Your task to perform on an android device: Do I have any events today? Image 0: 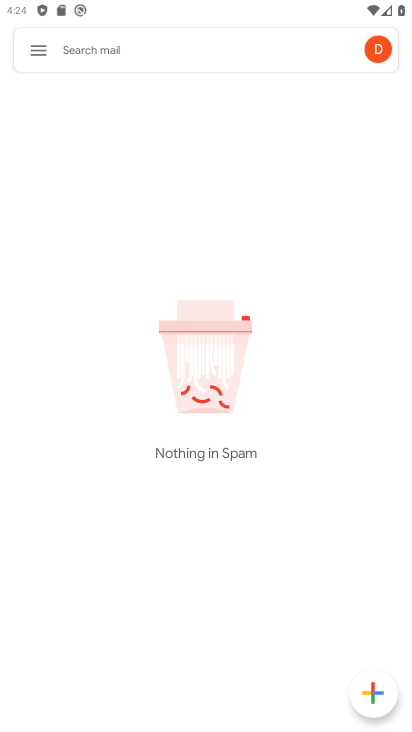
Step 0: press back button
Your task to perform on an android device: Do I have any events today? Image 1: 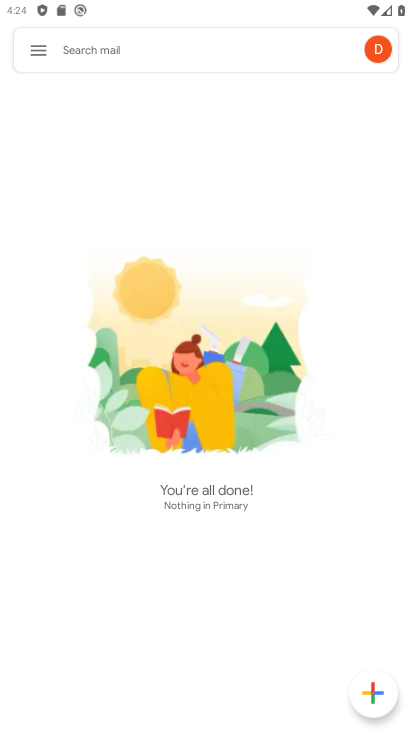
Step 1: press back button
Your task to perform on an android device: Do I have any events today? Image 2: 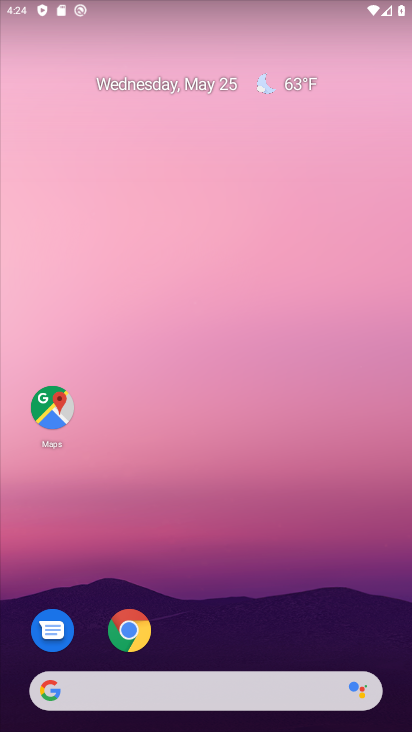
Step 2: drag from (249, 610) to (246, 115)
Your task to perform on an android device: Do I have any events today? Image 3: 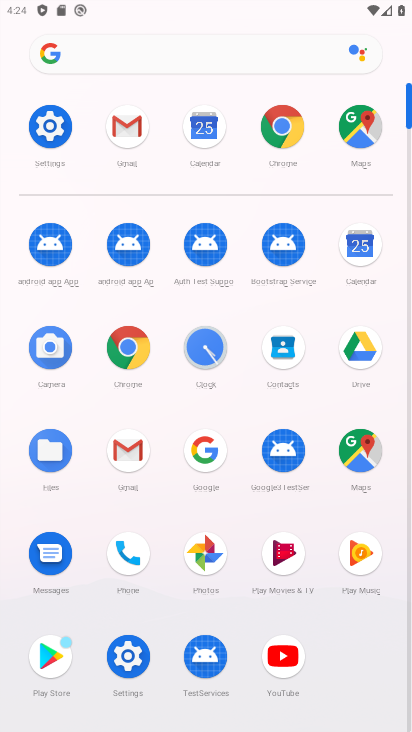
Step 3: click (363, 235)
Your task to perform on an android device: Do I have any events today? Image 4: 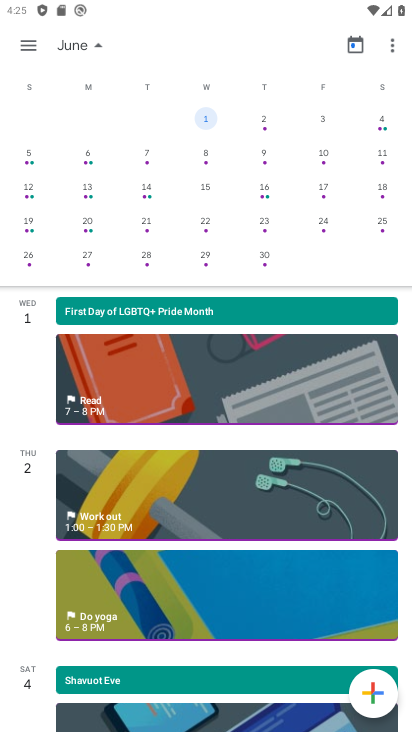
Step 4: drag from (52, 189) to (328, 208)
Your task to perform on an android device: Do I have any events today? Image 5: 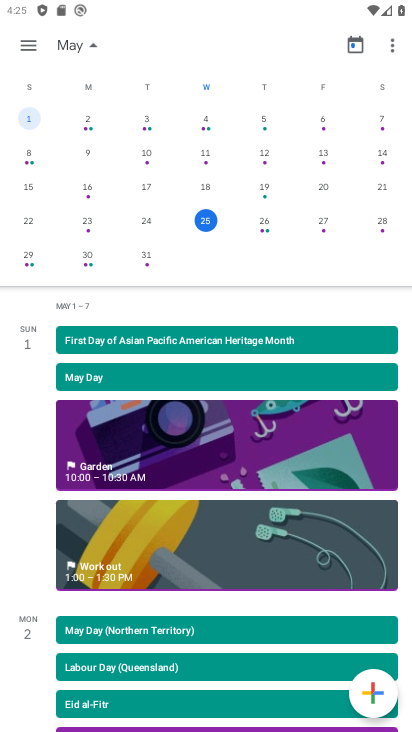
Step 5: click (215, 219)
Your task to perform on an android device: Do I have any events today? Image 6: 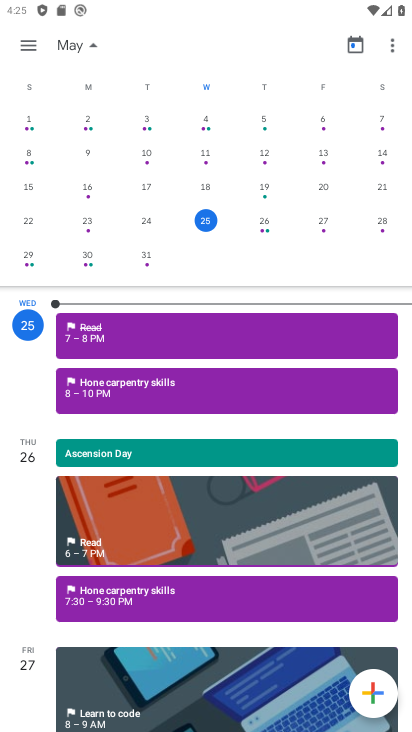
Step 6: click (205, 217)
Your task to perform on an android device: Do I have any events today? Image 7: 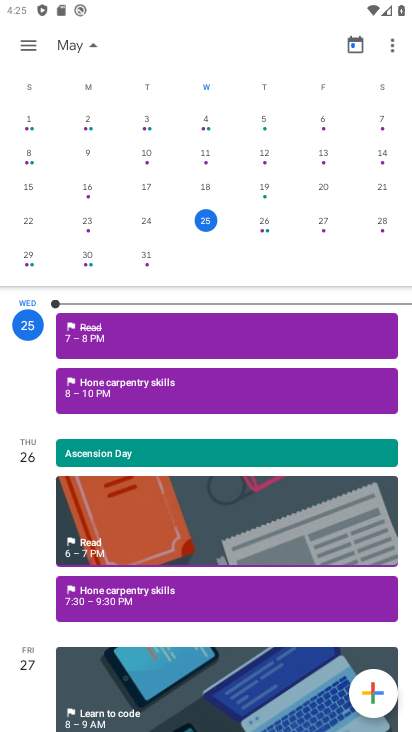
Step 7: click (122, 451)
Your task to perform on an android device: Do I have any events today? Image 8: 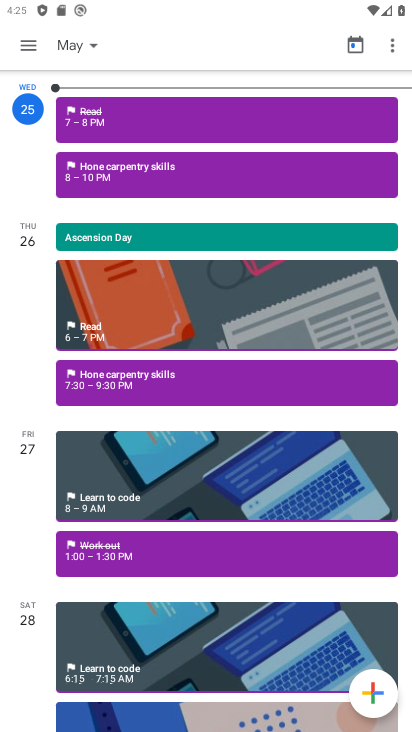
Step 8: drag from (173, 186) to (176, 617)
Your task to perform on an android device: Do I have any events today? Image 9: 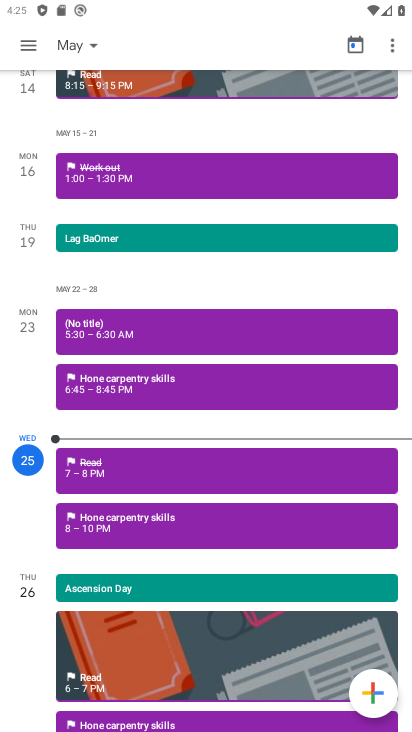
Step 9: click (104, 528)
Your task to perform on an android device: Do I have any events today? Image 10: 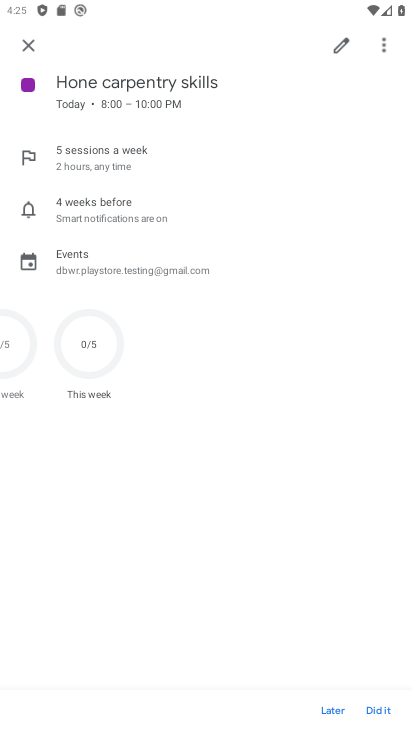
Step 10: task complete